Your task to perform on an android device: Open settings on Google Maps Image 0: 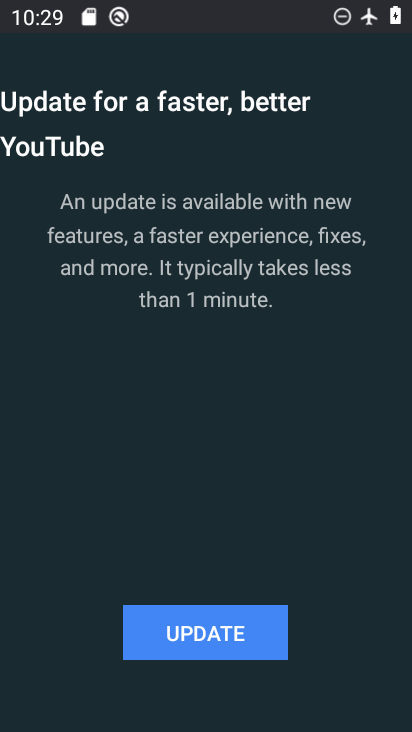
Step 0: press home button
Your task to perform on an android device: Open settings on Google Maps Image 1: 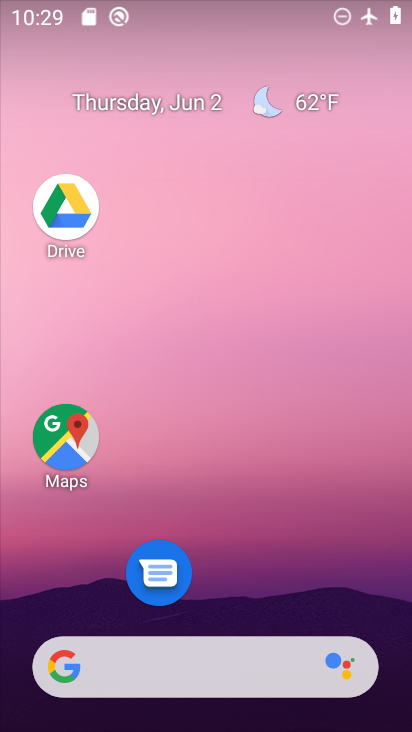
Step 1: drag from (307, 613) to (281, 116)
Your task to perform on an android device: Open settings on Google Maps Image 2: 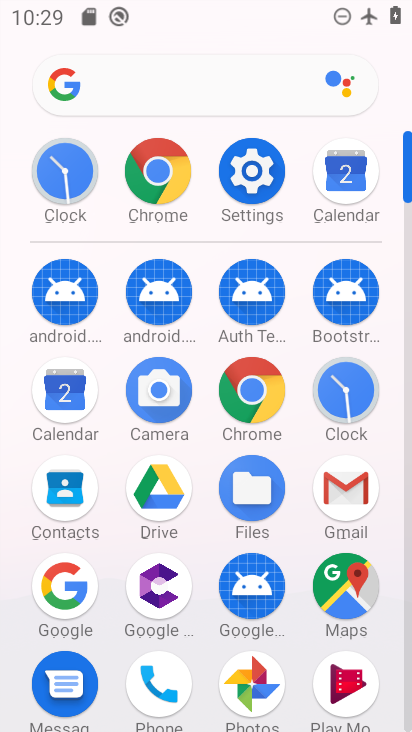
Step 2: click (234, 168)
Your task to perform on an android device: Open settings on Google Maps Image 3: 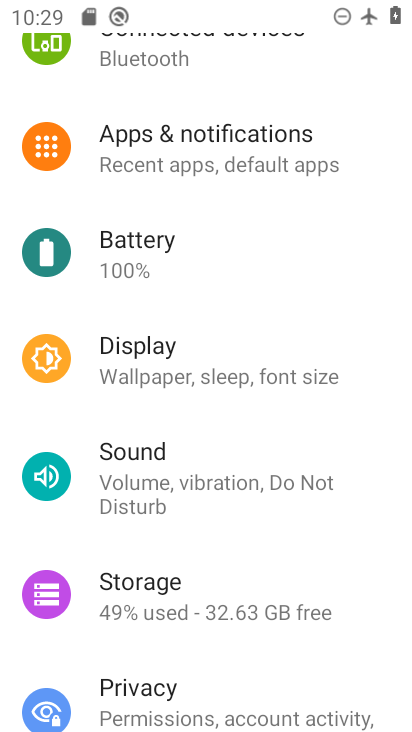
Step 3: press home button
Your task to perform on an android device: Open settings on Google Maps Image 4: 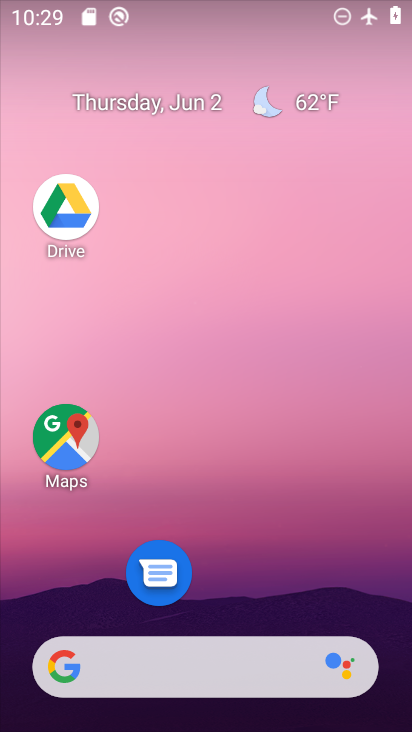
Step 4: drag from (205, 610) to (220, 10)
Your task to perform on an android device: Open settings on Google Maps Image 5: 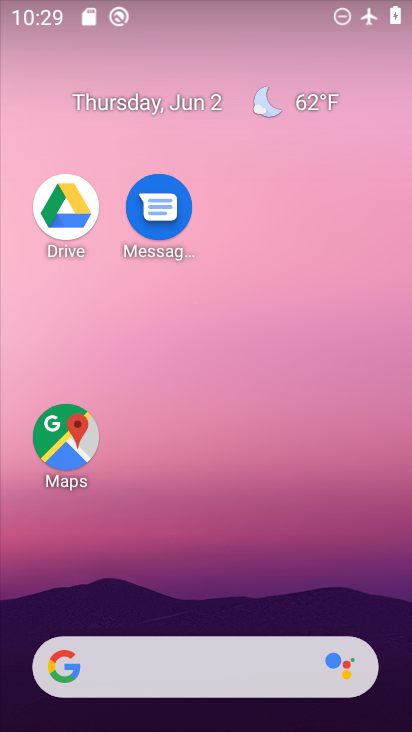
Step 5: click (228, 575)
Your task to perform on an android device: Open settings on Google Maps Image 6: 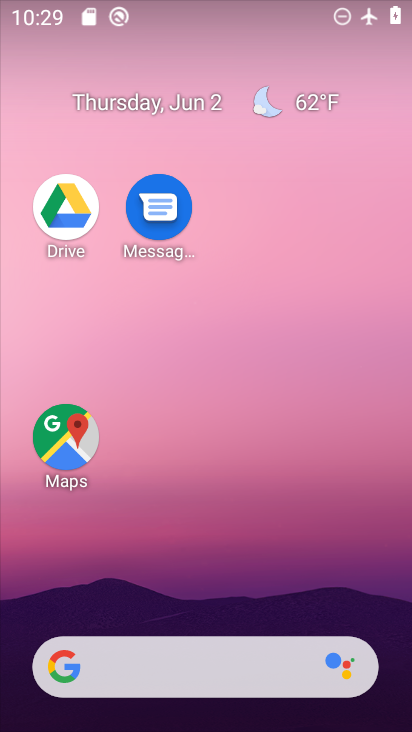
Step 6: click (78, 442)
Your task to perform on an android device: Open settings on Google Maps Image 7: 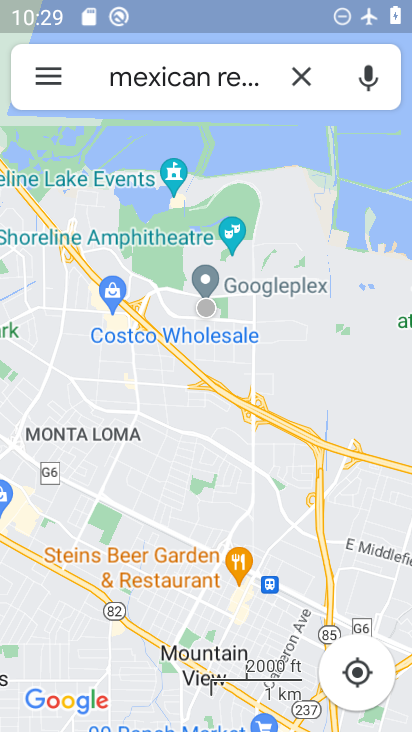
Step 7: click (40, 86)
Your task to perform on an android device: Open settings on Google Maps Image 8: 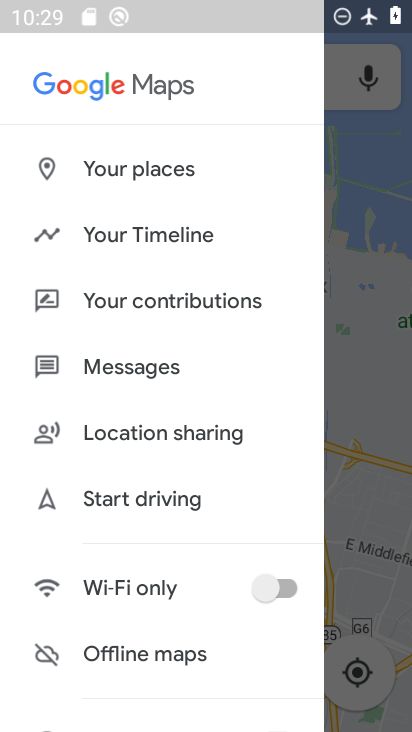
Step 8: drag from (58, 620) to (77, 13)
Your task to perform on an android device: Open settings on Google Maps Image 9: 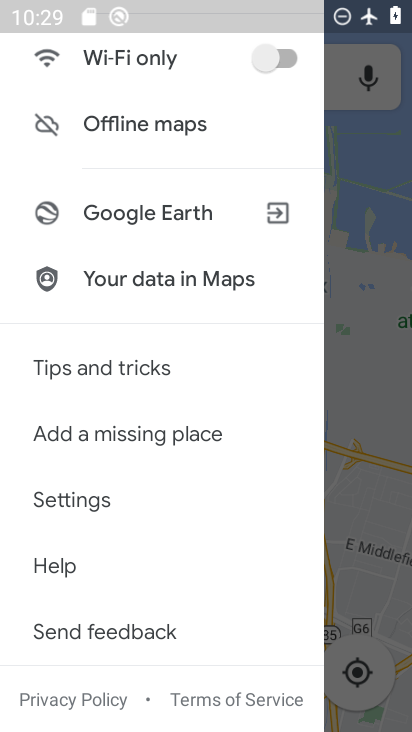
Step 9: click (82, 497)
Your task to perform on an android device: Open settings on Google Maps Image 10: 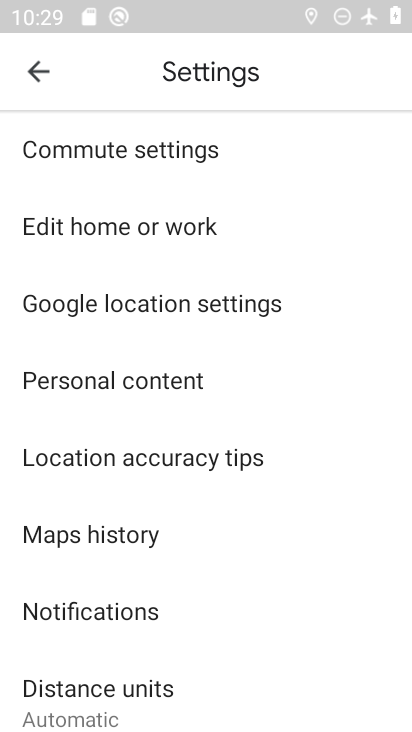
Step 10: task complete